Your task to perform on an android device: search for starred emails in the gmail app Image 0: 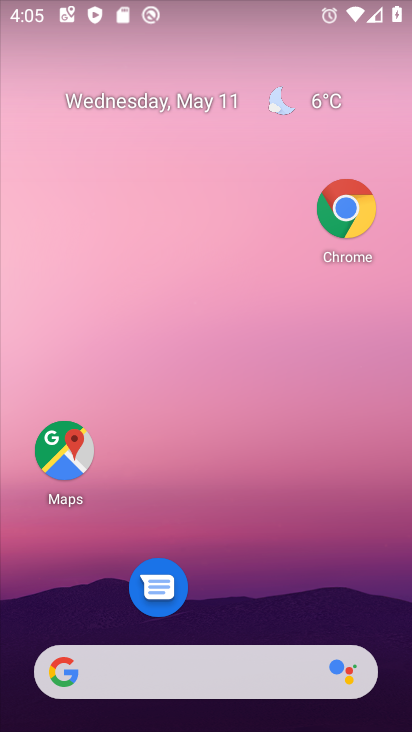
Step 0: drag from (294, 510) to (205, 106)
Your task to perform on an android device: search for starred emails in the gmail app Image 1: 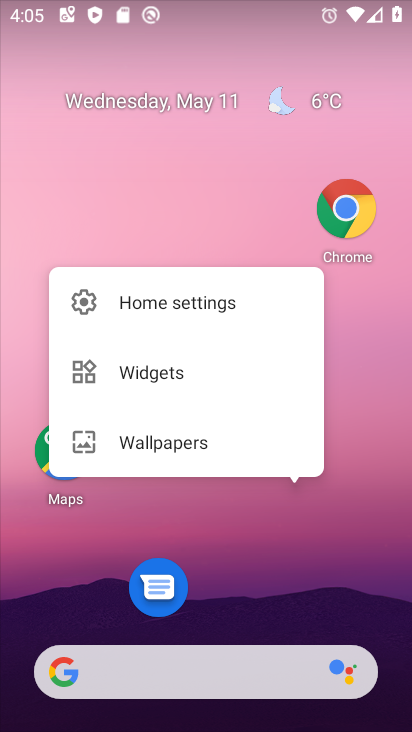
Step 1: click (293, 540)
Your task to perform on an android device: search for starred emails in the gmail app Image 2: 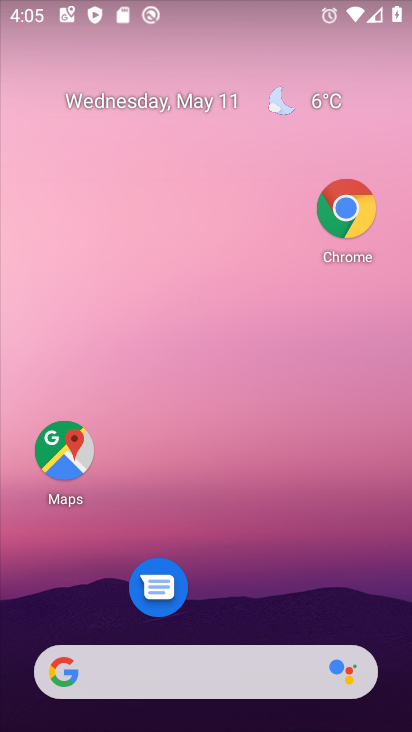
Step 2: drag from (293, 540) to (235, 83)
Your task to perform on an android device: search for starred emails in the gmail app Image 3: 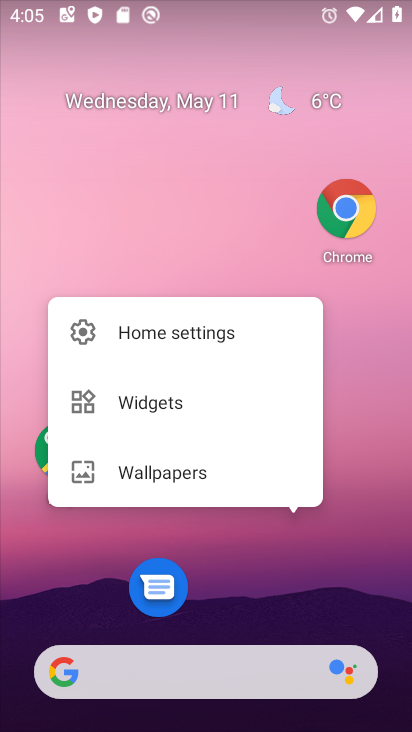
Step 3: click (339, 424)
Your task to perform on an android device: search for starred emails in the gmail app Image 4: 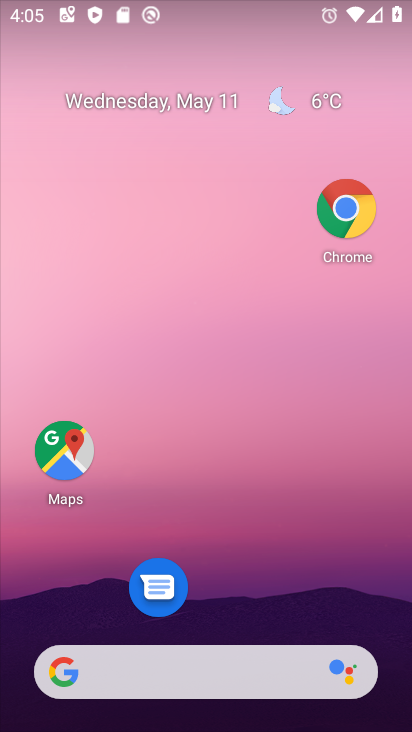
Step 4: drag from (227, 492) to (209, 125)
Your task to perform on an android device: search for starred emails in the gmail app Image 5: 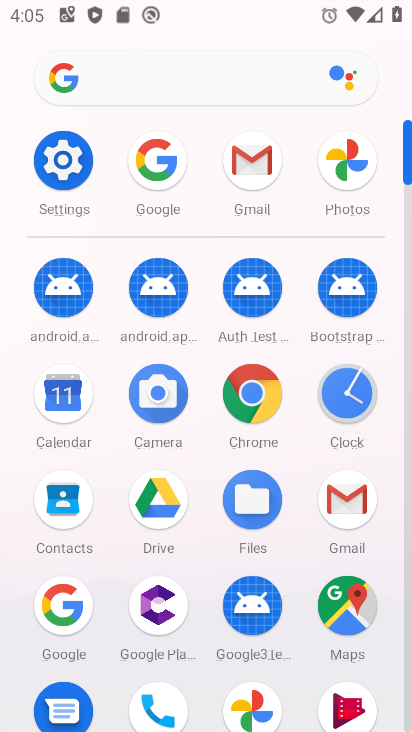
Step 5: click (246, 157)
Your task to perform on an android device: search for starred emails in the gmail app Image 6: 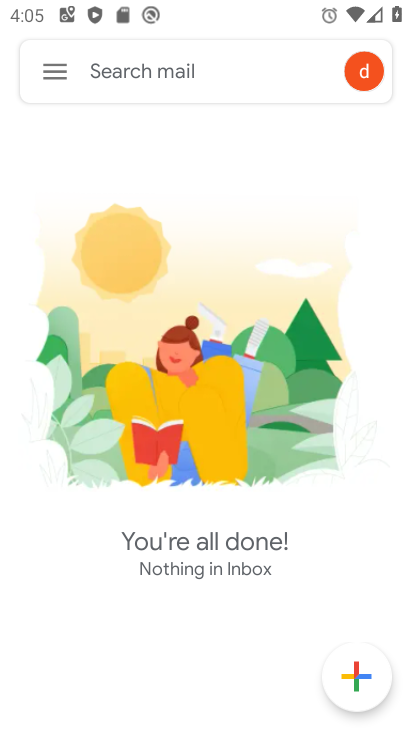
Step 6: click (59, 83)
Your task to perform on an android device: search for starred emails in the gmail app Image 7: 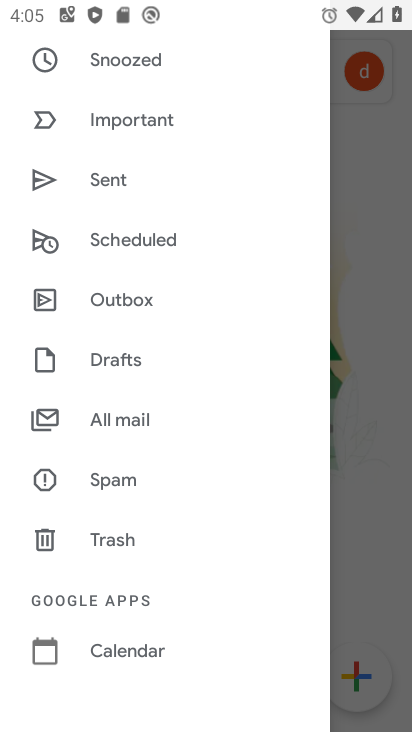
Step 7: drag from (190, 207) to (220, 487)
Your task to perform on an android device: search for starred emails in the gmail app Image 8: 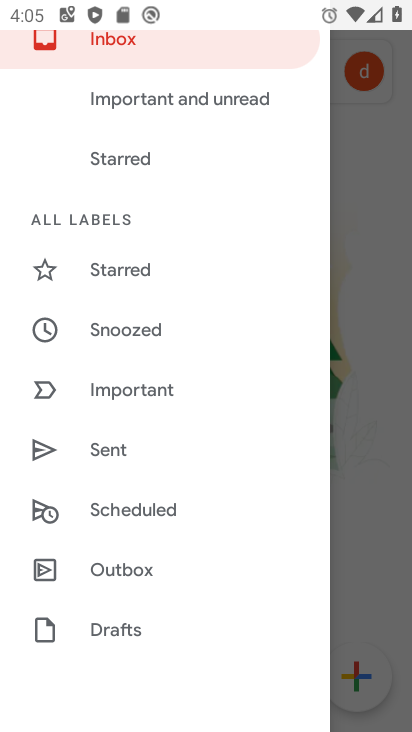
Step 8: click (127, 273)
Your task to perform on an android device: search for starred emails in the gmail app Image 9: 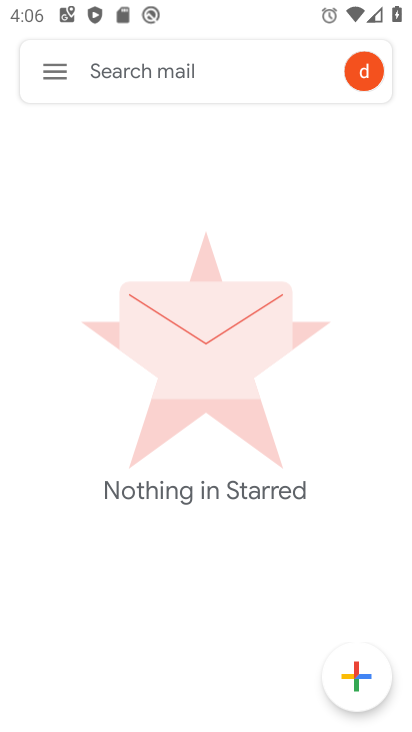
Step 9: task complete